Your task to perform on an android device: open a new tab in the chrome app Image 0: 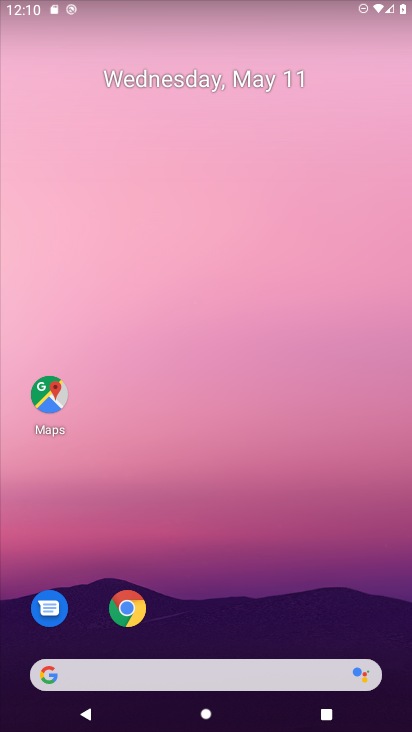
Step 0: drag from (287, 303) to (318, 65)
Your task to perform on an android device: open a new tab in the chrome app Image 1: 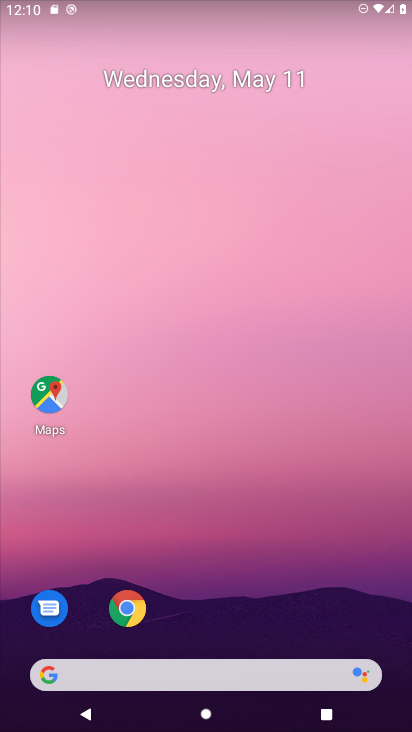
Step 1: drag from (240, 619) to (260, 57)
Your task to perform on an android device: open a new tab in the chrome app Image 2: 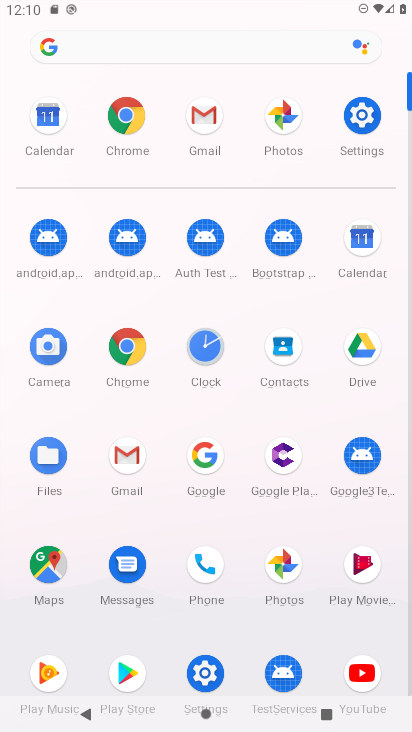
Step 2: click (125, 122)
Your task to perform on an android device: open a new tab in the chrome app Image 3: 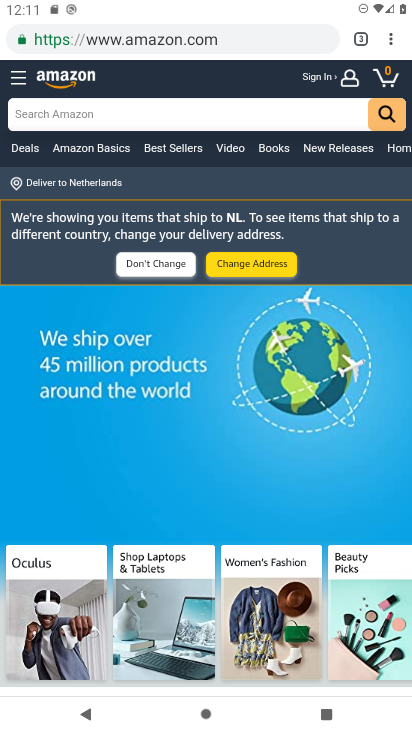
Step 3: task complete